Your task to perform on an android device: Go to Reddit.com Image 0: 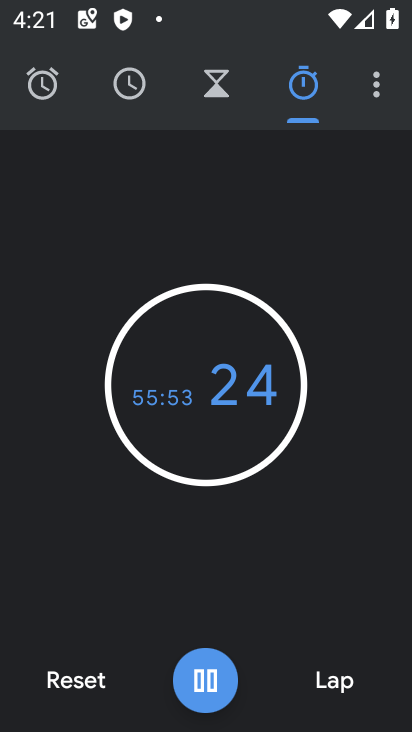
Step 0: press home button
Your task to perform on an android device: Go to Reddit.com Image 1: 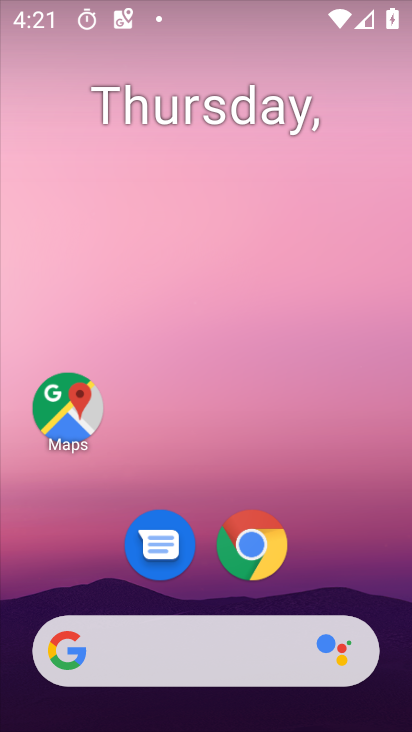
Step 1: drag from (229, 723) to (237, 109)
Your task to perform on an android device: Go to Reddit.com Image 2: 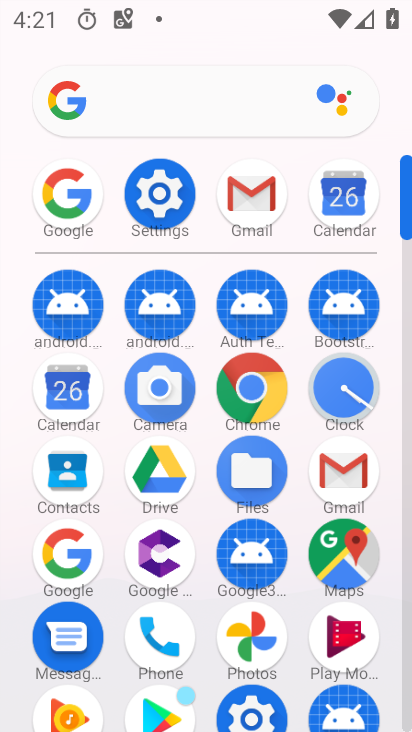
Step 2: click (256, 387)
Your task to perform on an android device: Go to Reddit.com Image 3: 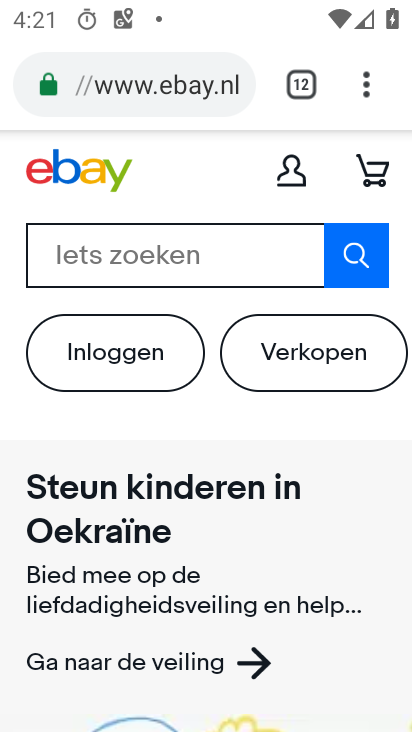
Step 3: click (368, 90)
Your task to perform on an android device: Go to Reddit.com Image 4: 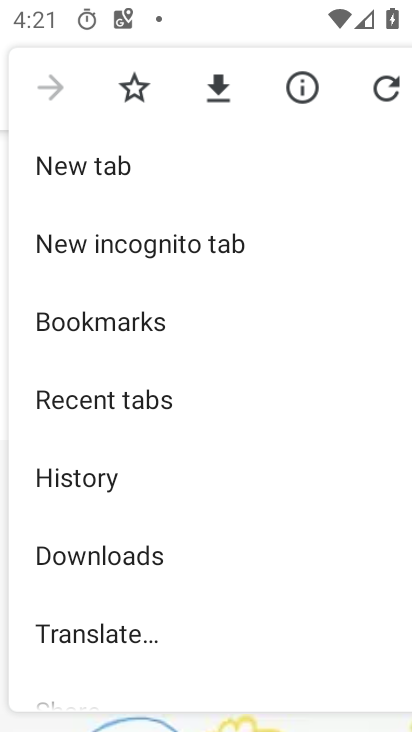
Step 4: click (79, 160)
Your task to perform on an android device: Go to Reddit.com Image 5: 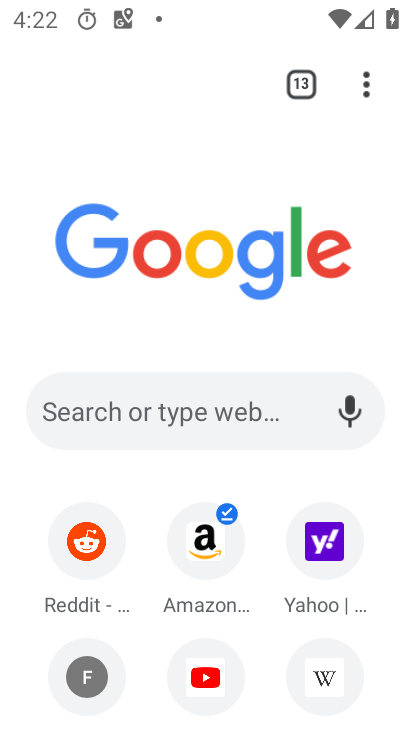
Step 5: click (220, 411)
Your task to perform on an android device: Go to Reddit.com Image 6: 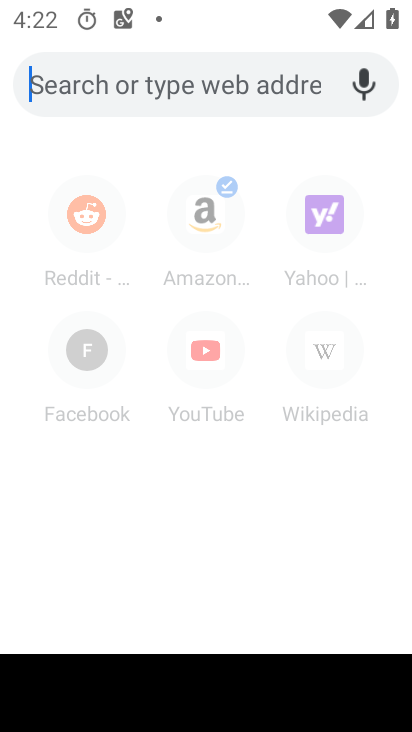
Step 6: type "Reddit.com"
Your task to perform on an android device: Go to Reddit.com Image 7: 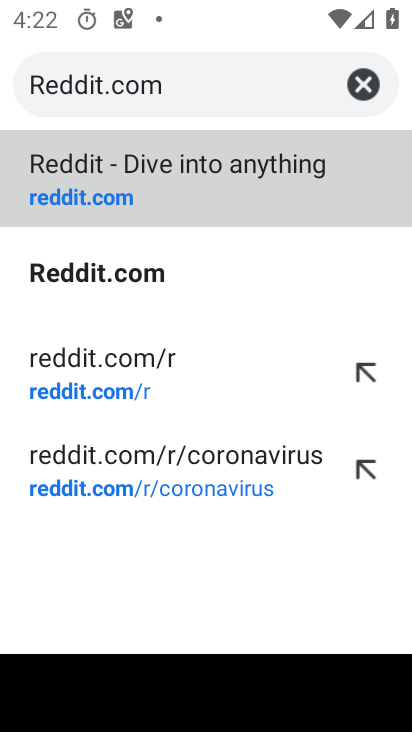
Step 7: click (120, 166)
Your task to perform on an android device: Go to Reddit.com Image 8: 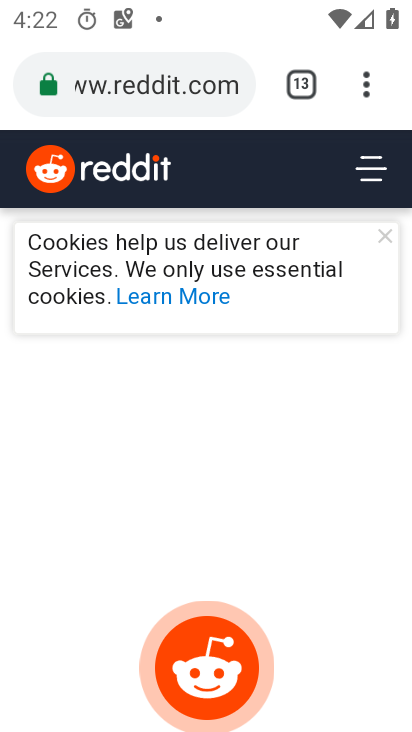
Step 8: task complete